Your task to perform on an android device: Open Google Chrome and click the shortcut for Amazon.com Image 0: 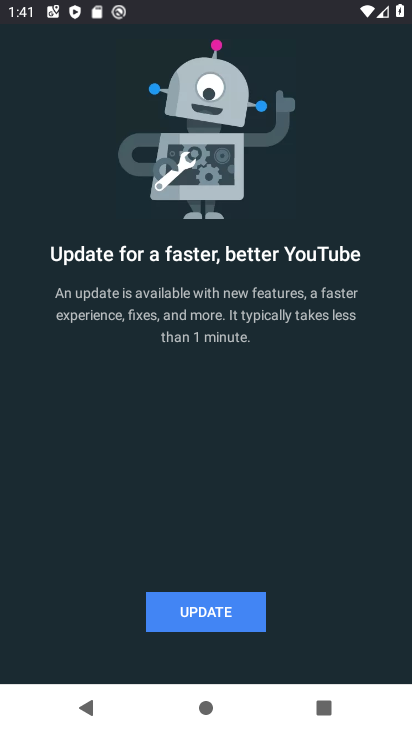
Step 0: press home button
Your task to perform on an android device: Open Google Chrome and click the shortcut for Amazon.com Image 1: 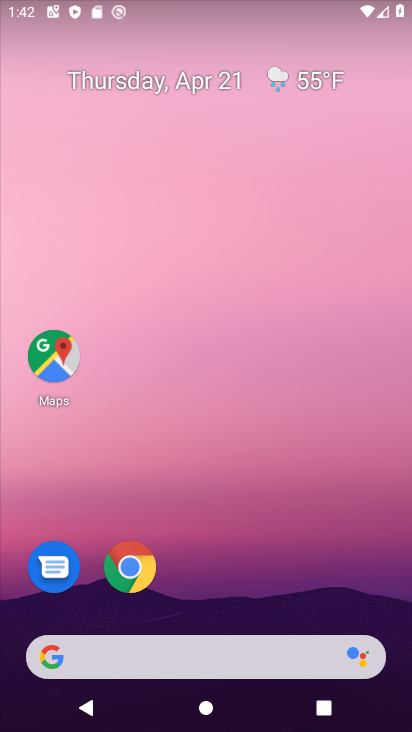
Step 1: click (129, 561)
Your task to perform on an android device: Open Google Chrome and click the shortcut for Amazon.com Image 2: 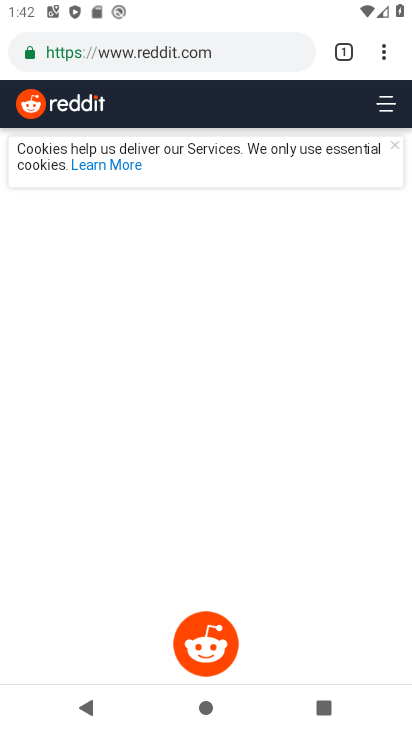
Step 2: click (342, 50)
Your task to perform on an android device: Open Google Chrome and click the shortcut for Amazon.com Image 3: 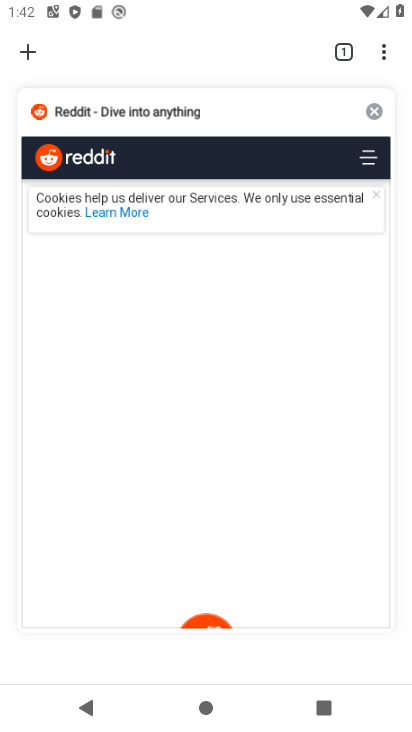
Step 3: click (25, 48)
Your task to perform on an android device: Open Google Chrome and click the shortcut for Amazon.com Image 4: 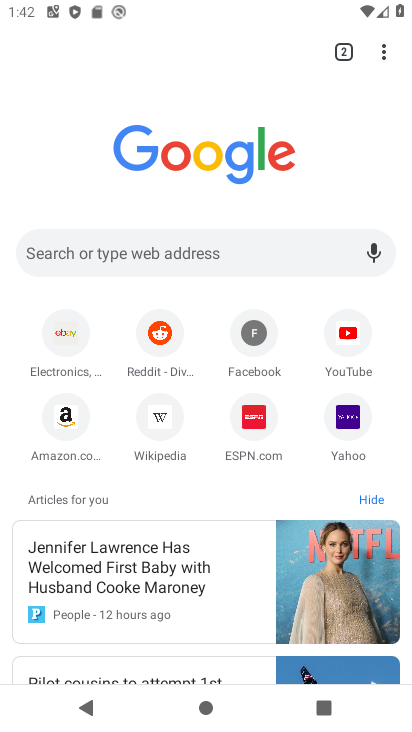
Step 4: click (63, 408)
Your task to perform on an android device: Open Google Chrome and click the shortcut for Amazon.com Image 5: 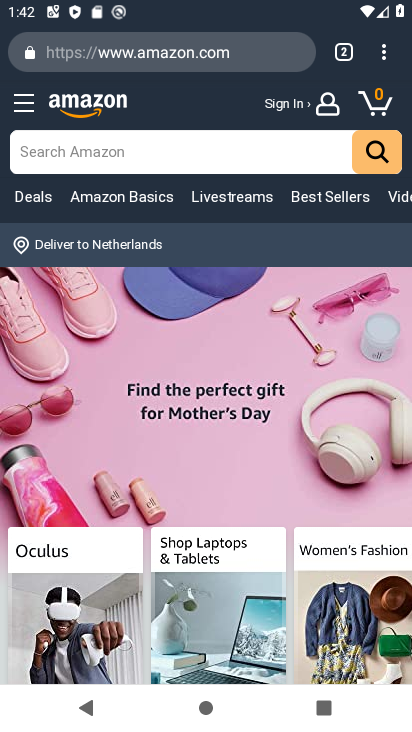
Step 5: task complete